Your task to perform on an android device: Open calendar and show me the first week of next month Image 0: 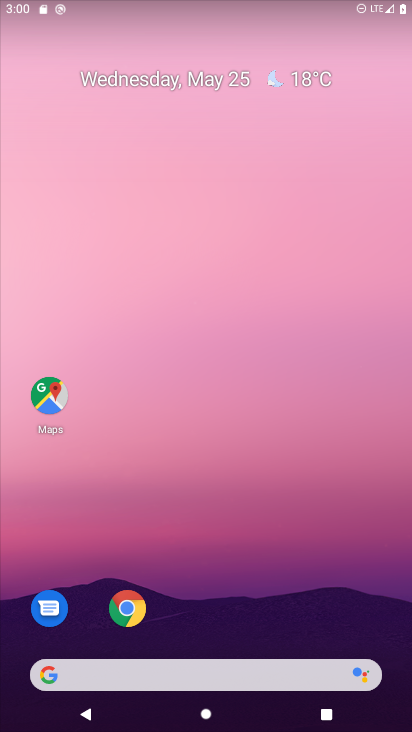
Step 0: drag from (397, 629) to (319, 187)
Your task to perform on an android device: Open calendar and show me the first week of next month Image 1: 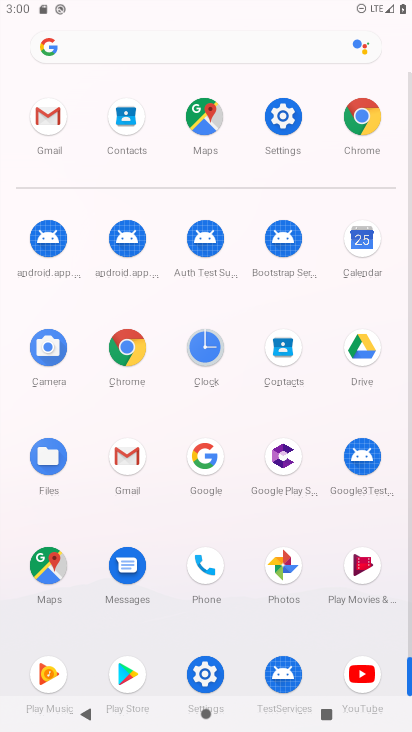
Step 1: click (360, 238)
Your task to perform on an android device: Open calendar and show me the first week of next month Image 2: 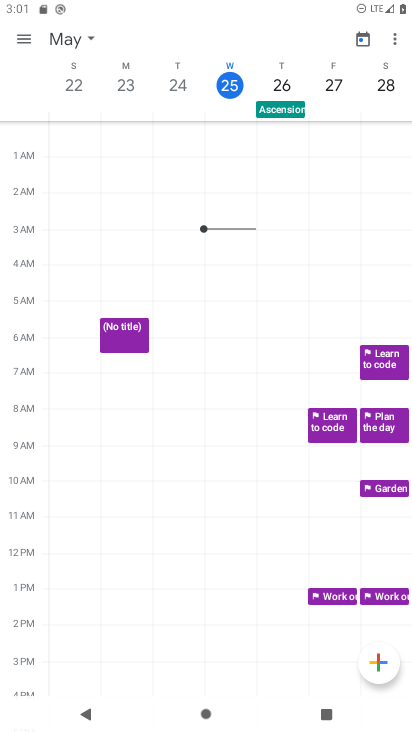
Step 2: click (92, 37)
Your task to perform on an android device: Open calendar and show me the first week of next month Image 3: 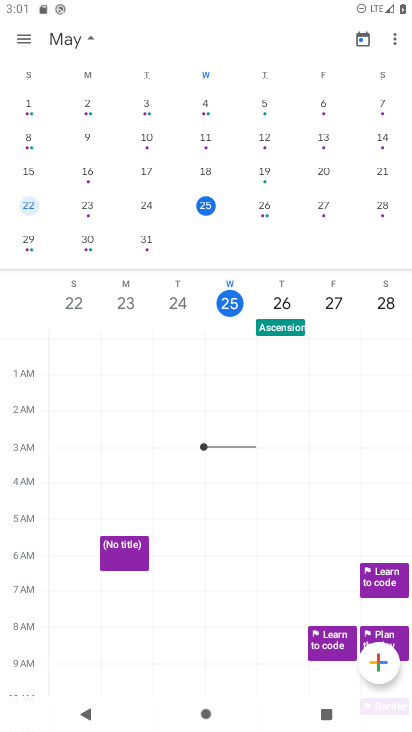
Step 3: drag from (374, 171) to (128, 159)
Your task to perform on an android device: Open calendar and show me the first week of next month Image 4: 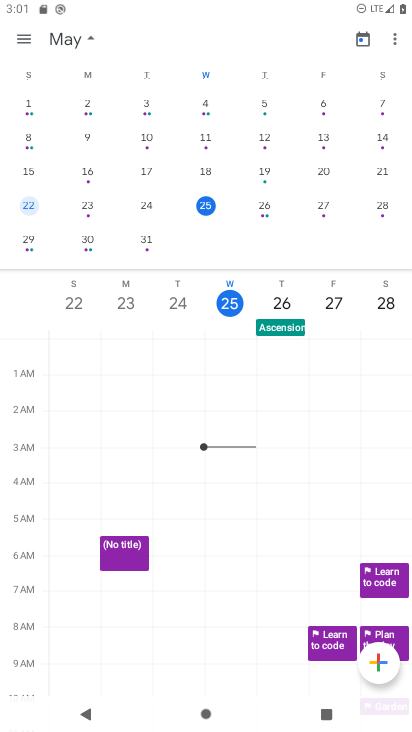
Step 4: click (25, 104)
Your task to perform on an android device: Open calendar and show me the first week of next month Image 5: 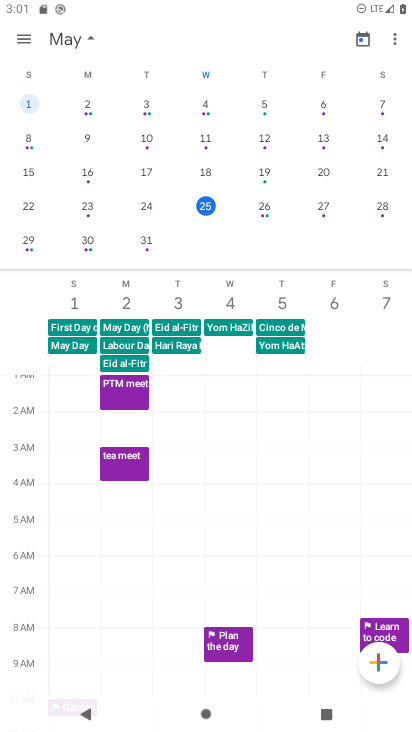
Step 5: drag from (398, 158) to (54, 146)
Your task to perform on an android device: Open calendar and show me the first week of next month Image 6: 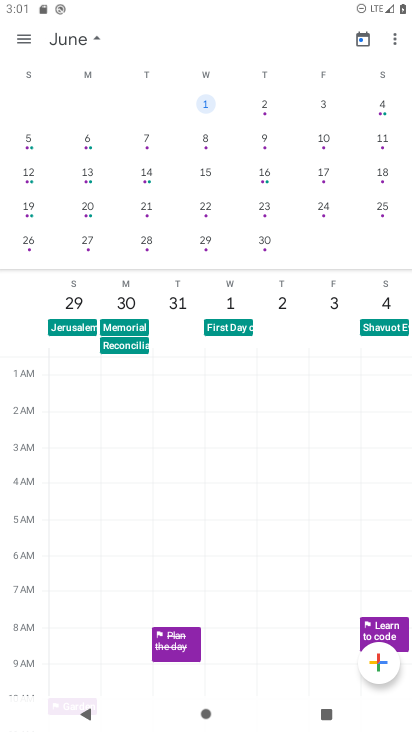
Step 6: click (28, 137)
Your task to perform on an android device: Open calendar and show me the first week of next month Image 7: 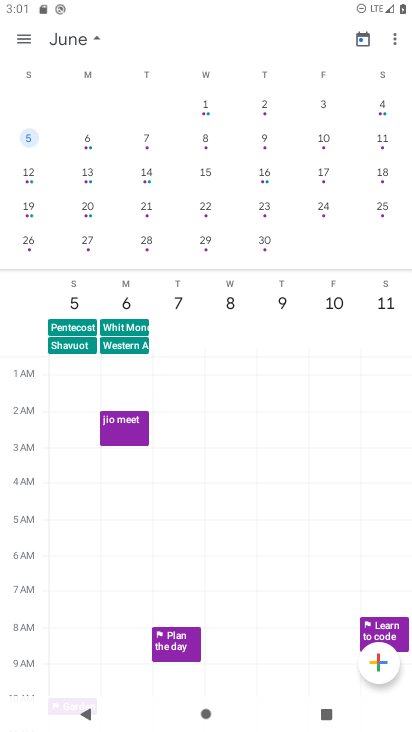
Step 7: task complete